Your task to perform on an android device: delete the emails in spam in the gmail app Image 0: 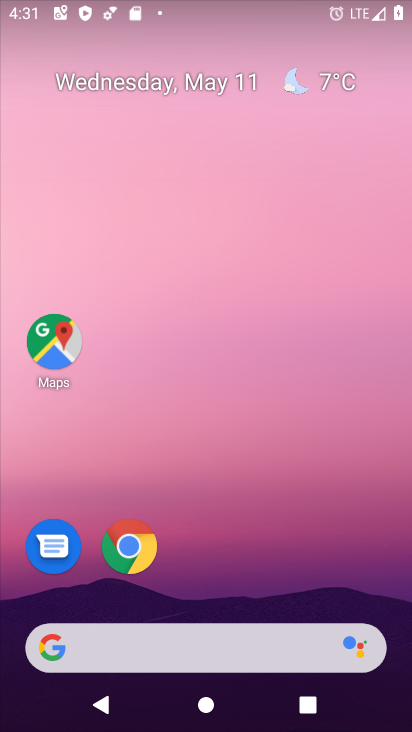
Step 0: click (349, 2)
Your task to perform on an android device: delete the emails in spam in the gmail app Image 1: 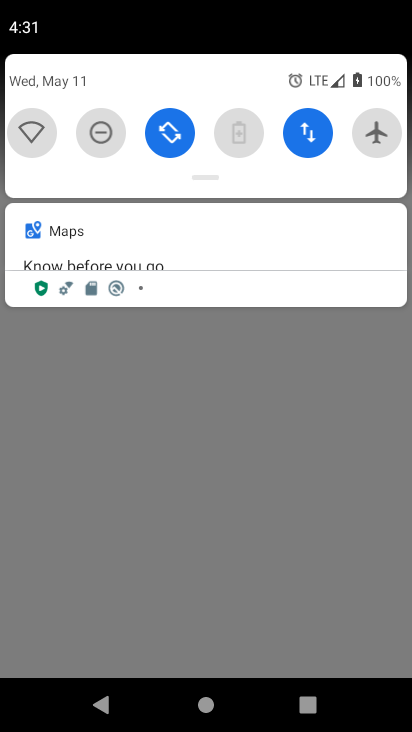
Step 1: drag from (208, 631) to (199, 227)
Your task to perform on an android device: delete the emails in spam in the gmail app Image 2: 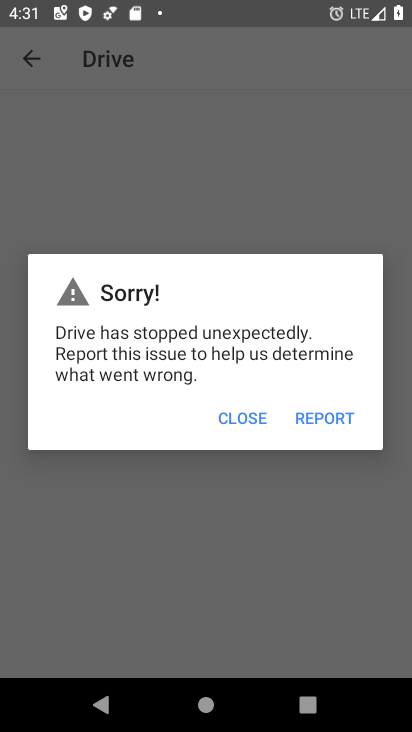
Step 2: press back button
Your task to perform on an android device: delete the emails in spam in the gmail app Image 3: 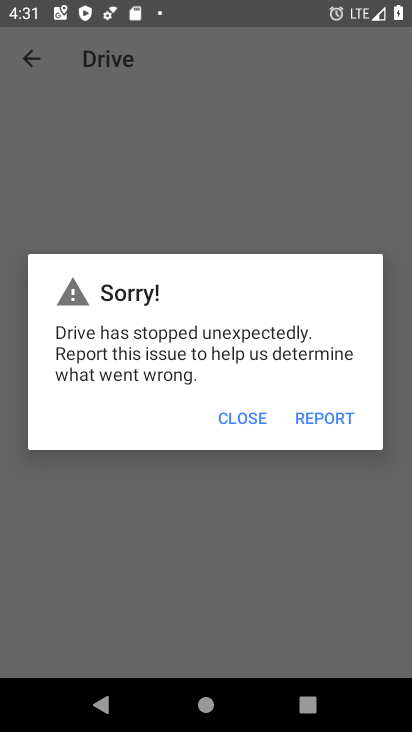
Step 3: press back button
Your task to perform on an android device: delete the emails in spam in the gmail app Image 4: 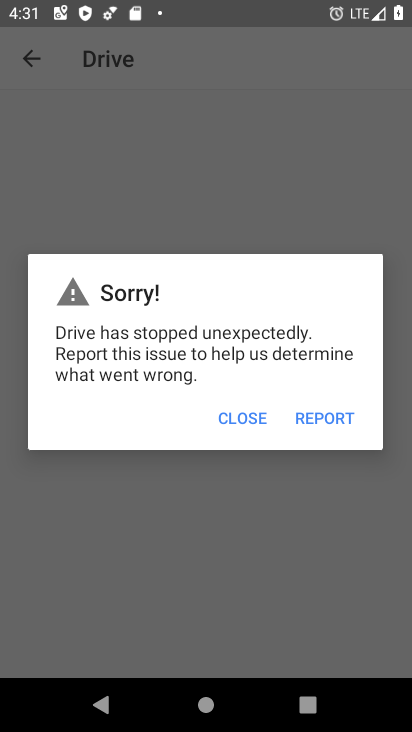
Step 4: press back button
Your task to perform on an android device: delete the emails in spam in the gmail app Image 5: 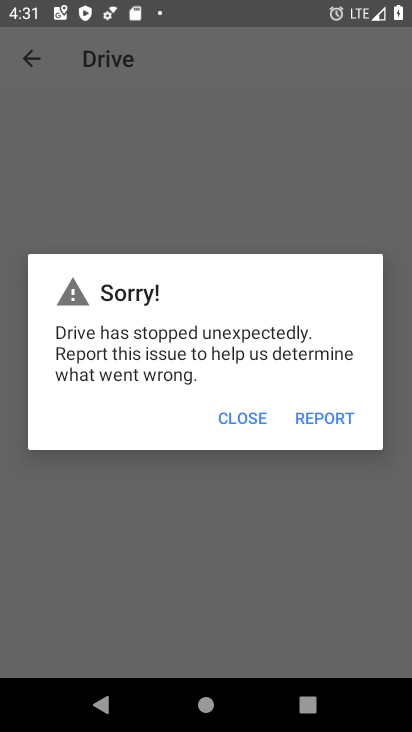
Step 5: press home button
Your task to perform on an android device: delete the emails in spam in the gmail app Image 6: 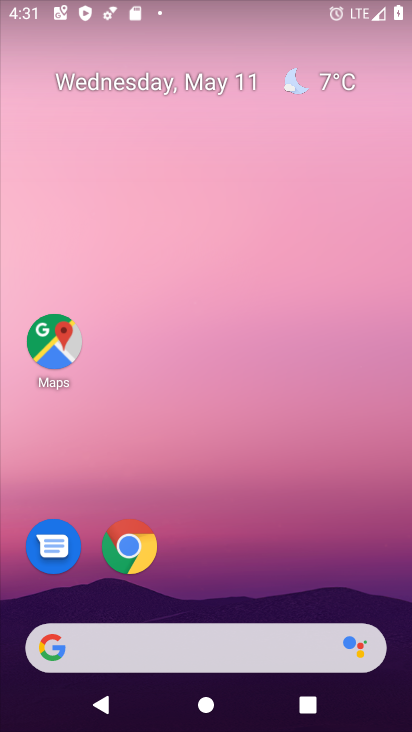
Step 6: drag from (367, 630) to (407, 146)
Your task to perform on an android device: delete the emails in spam in the gmail app Image 7: 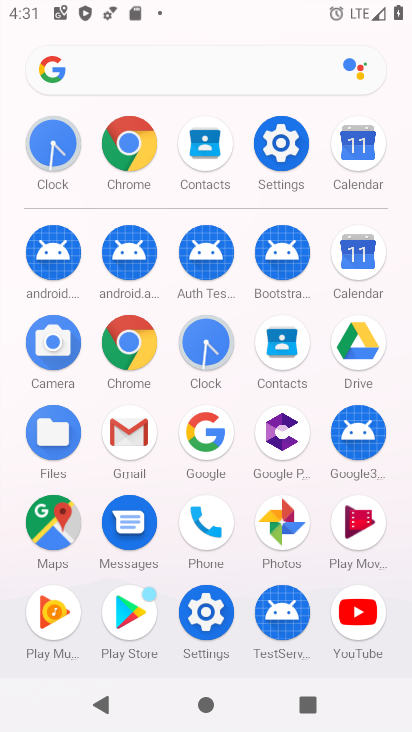
Step 7: click (140, 430)
Your task to perform on an android device: delete the emails in spam in the gmail app Image 8: 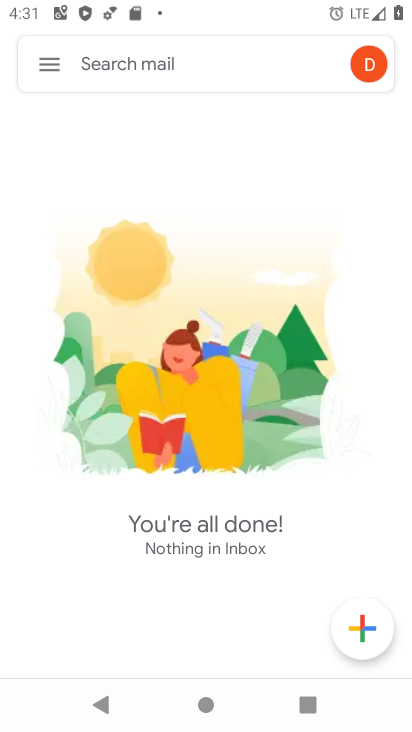
Step 8: click (45, 60)
Your task to perform on an android device: delete the emails in spam in the gmail app Image 9: 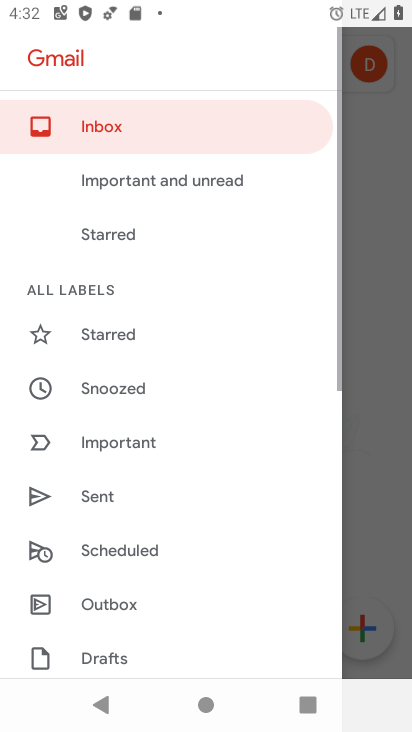
Step 9: drag from (161, 556) to (235, 198)
Your task to perform on an android device: delete the emails in spam in the gmail app Image 10: 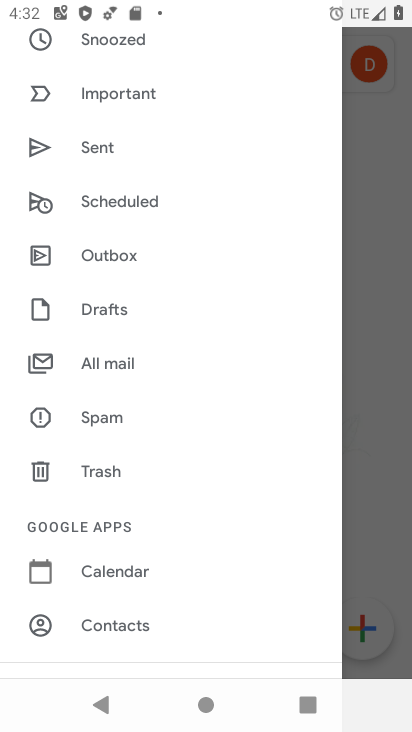
Step 10: click (97, 412)
Your task to perform on an android device: delete the emails in spam in the gmail app Image 11: 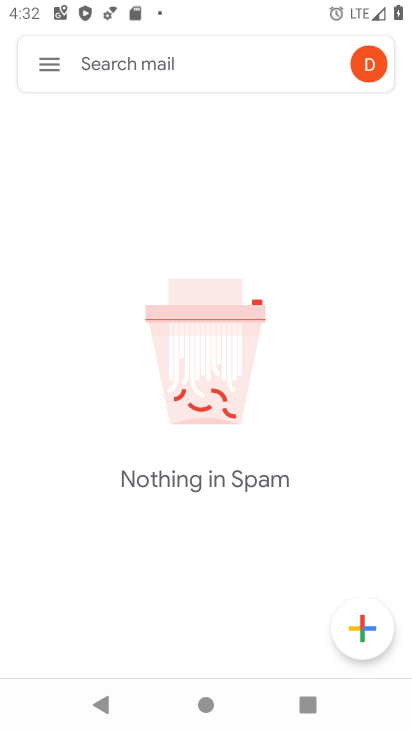
Step 11: task complete